Your task to perform on an android device: choose inbox layout in the gmail app Image 0: 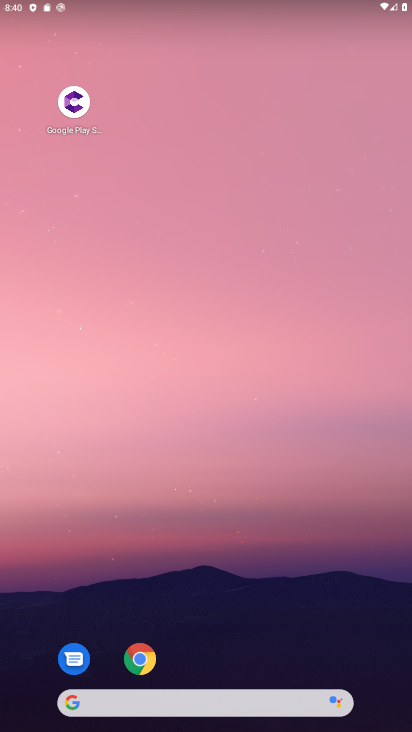
Step 0: drag from (292, 453) to (0, 271)
Your task to perform on an android device: choose inbox layout in the gmail app Image 1: 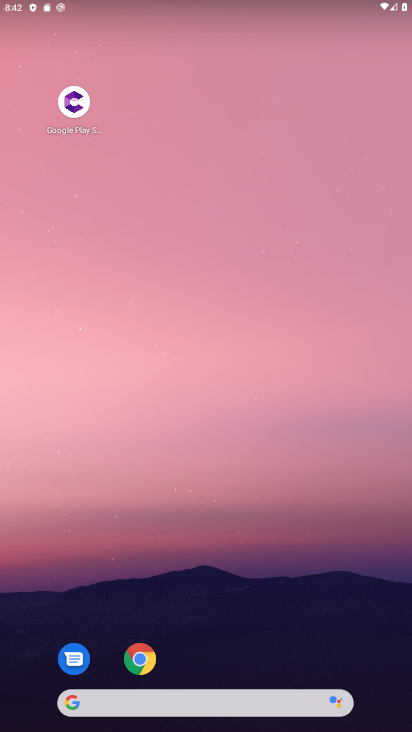
Step 1: drag from (266, 636) to (371, 5)
Your task to perform on an android device: choose inbox layout in the gmail app Image 2: 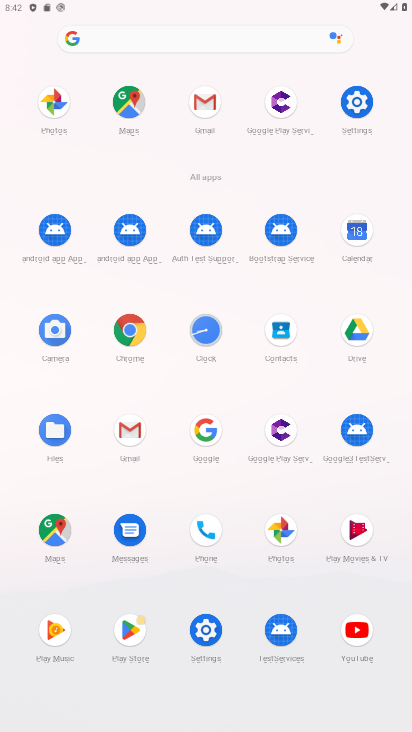
Step 2: click (199, 110)
Your task to perform on an android device: choose inbox layout in the gmail app Image 3: 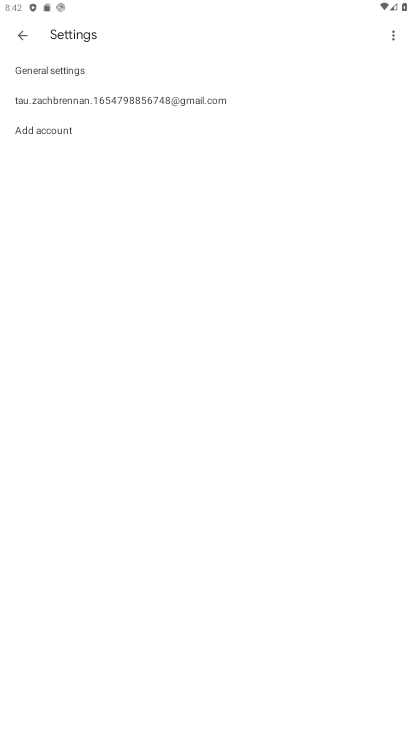
Step 3: click (40, 92)
Your task to perform on an android device: choose inbox layout in the gmail app Image 4: 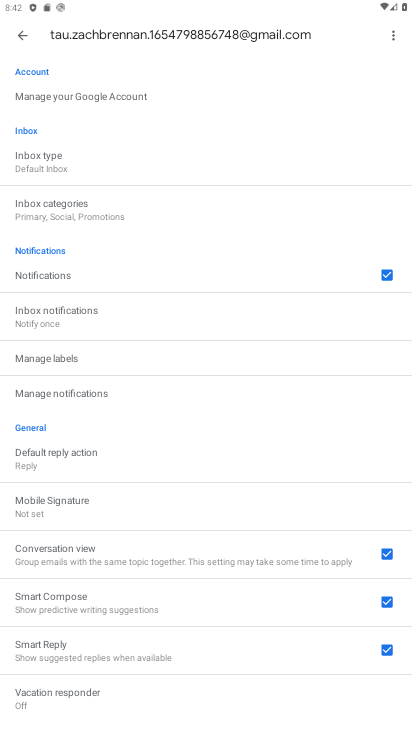
Step 4: click (36, 164)
Your task to perform on an android device: choose inbox layout in the gmail app Image 5: 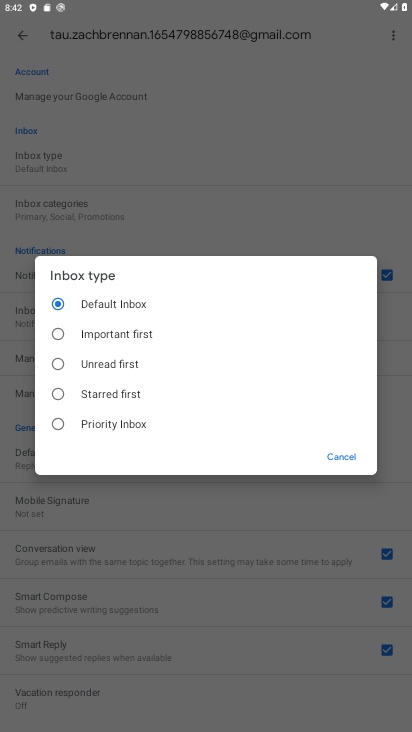
Step 5: click (70, 369)
Your task to perform on an android device: choose inbox layout in the gmail app Image 6: 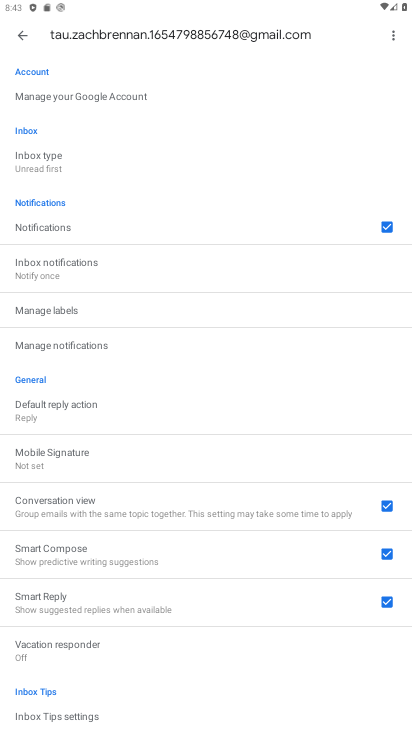
Step 6: task complete